Your task to perform on an android device: find snoozed emails in the gmail app Image 0: 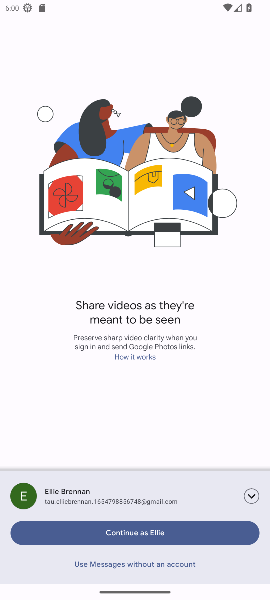
Step 0: press home button
Your task to perform on an android device: find snoozed emails in the gmail app Image 1: 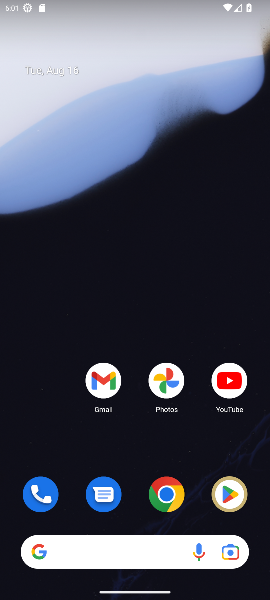
Step 1: drag from (58, 420) to (116, 167)
Your task to perform on an android device: find snoozed emails in the gmail app Image 2: 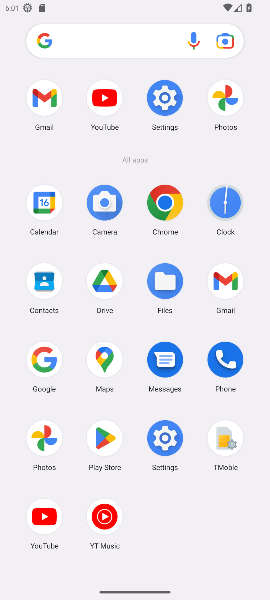
Step 2: click (221, 290)
Your task to perform on an android device: find snoozed emails in the gmail app Image 3: 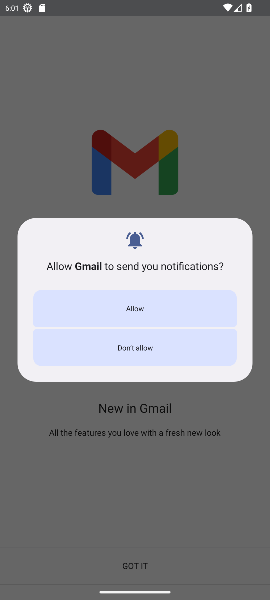
Step 3: task complete